Your task to perform on an android device: stop showing notifications on the lock screen Image 0: 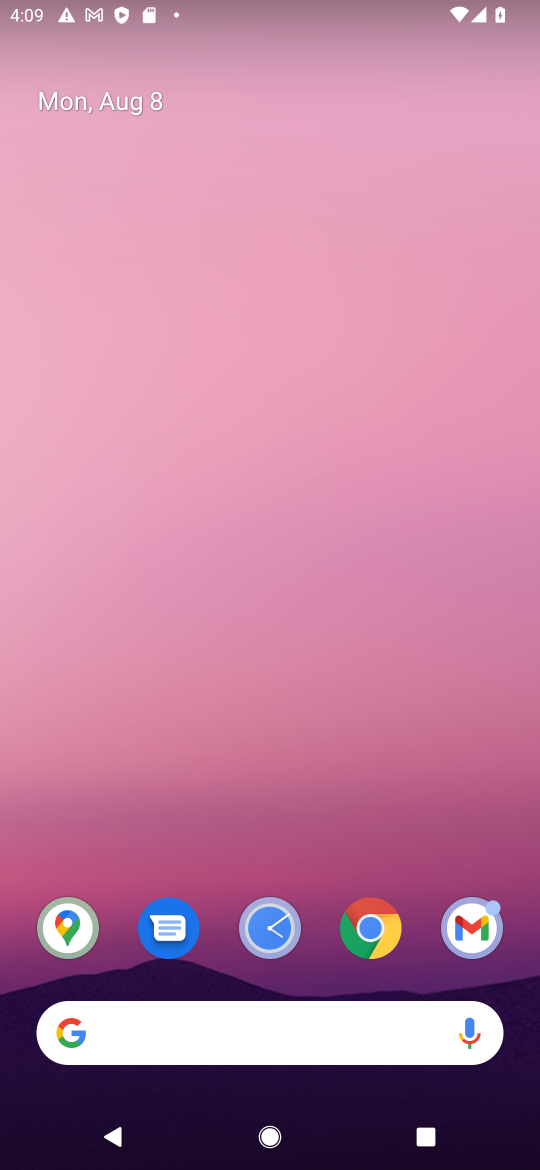
Step 0: drag from (424, 867) to (390, 105)
Your task to perform on an android device: stop showing notifications on the lock screen Image 1: 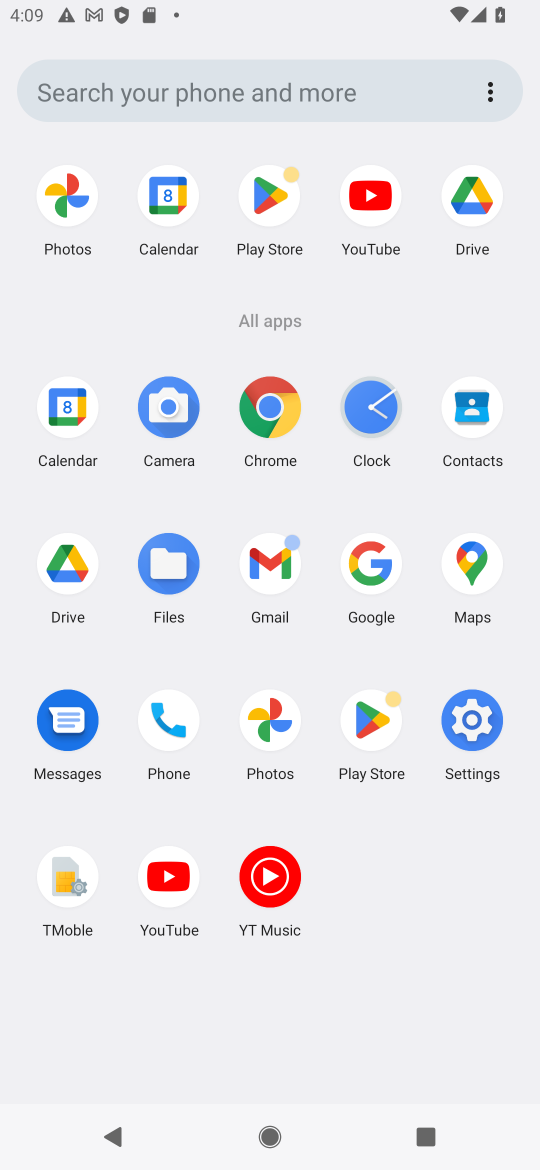
Step 1: click (459, 727)
Your task to perform on an android device: stop showing notifications on the lock screen Image 2: 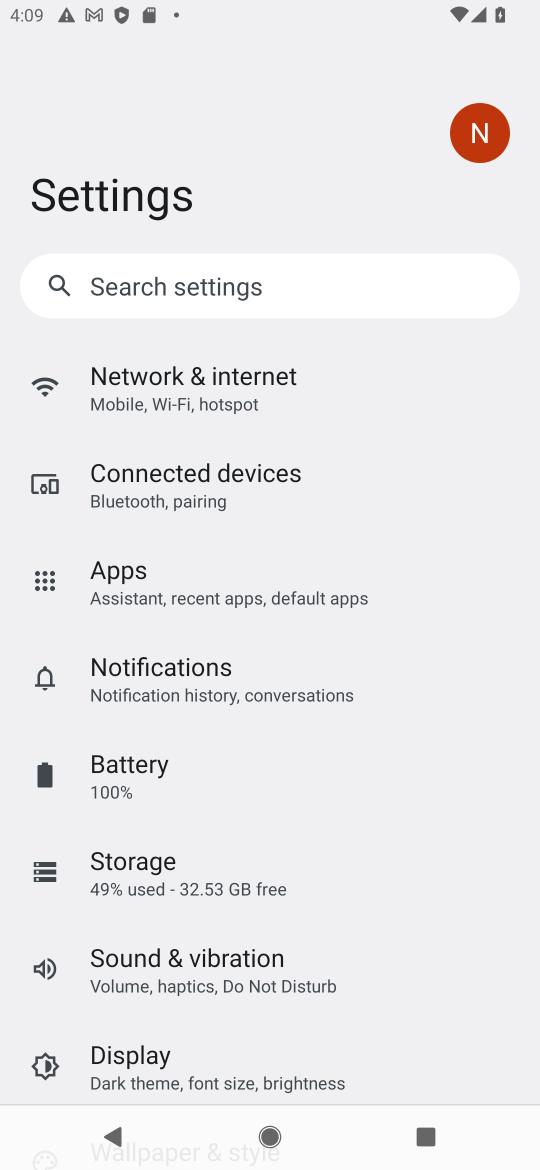
Step 2: click (267, 671)
Your task to perform on an android device: stop showing notifications on the lock screen Image 3: 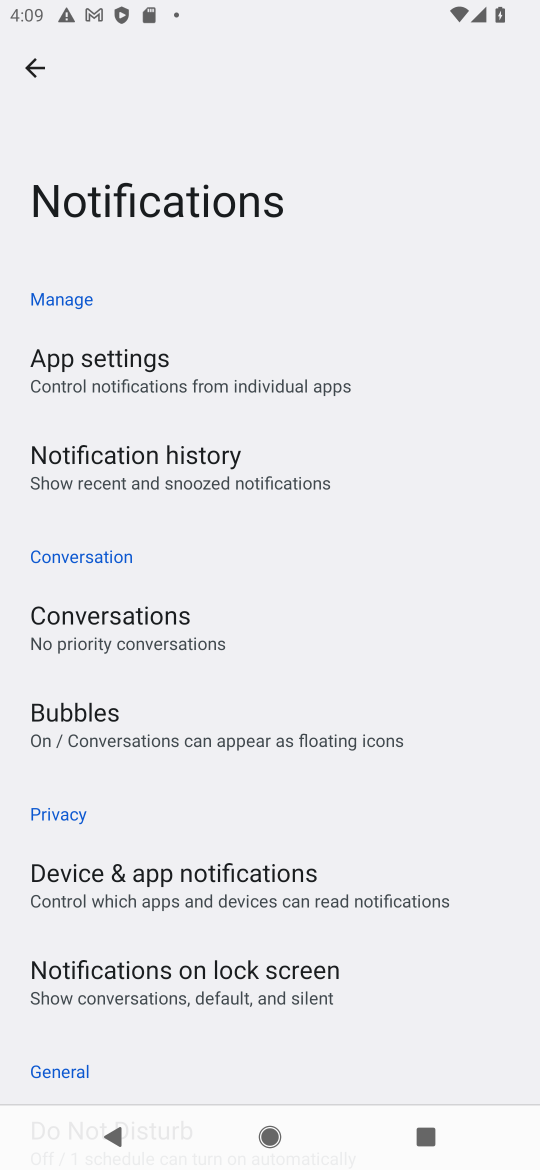
Step 3: click (309, 981)
Your task to perform on an android device: stop showing notifications on the lock screen Image 4: 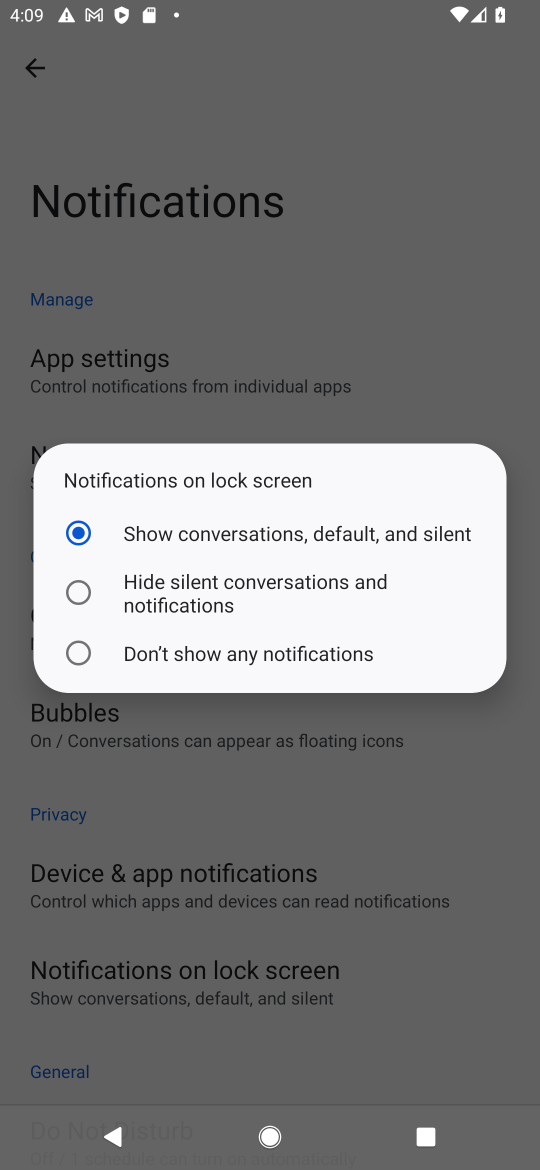
Step 4: click (339, 644)
Your task to perform on an android device: stop showing notifications on the lock screen Image 5: 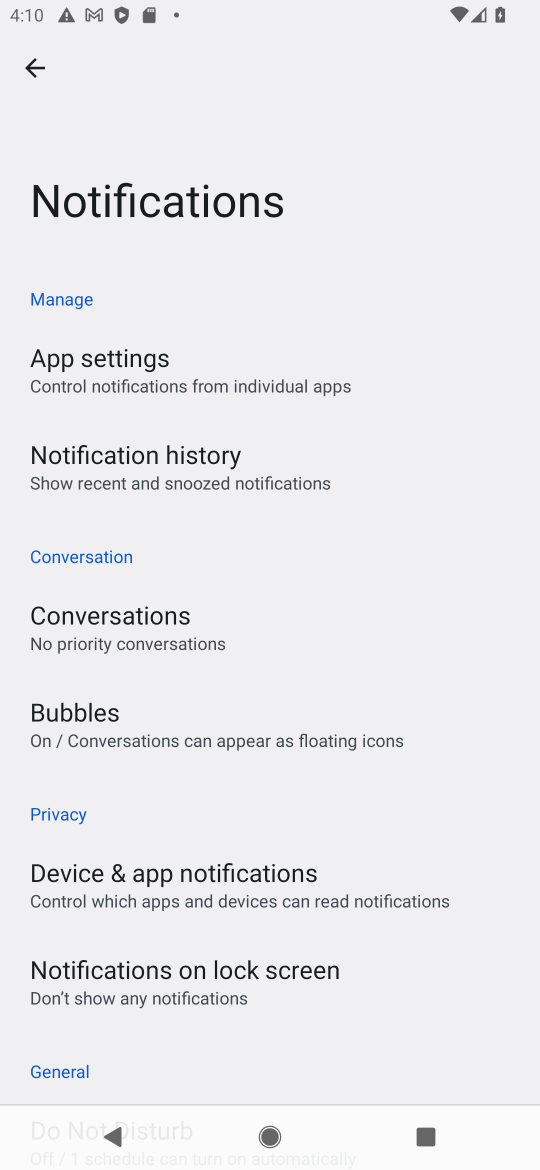
Step 5: task complete